Your task to perform on an android device: check google app version Image 0: 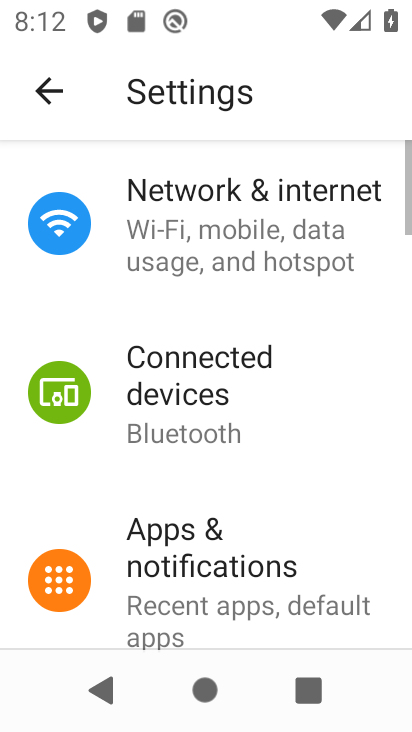
Step 0: press home button
Your task to perform on an android device: check google app version Image 1: 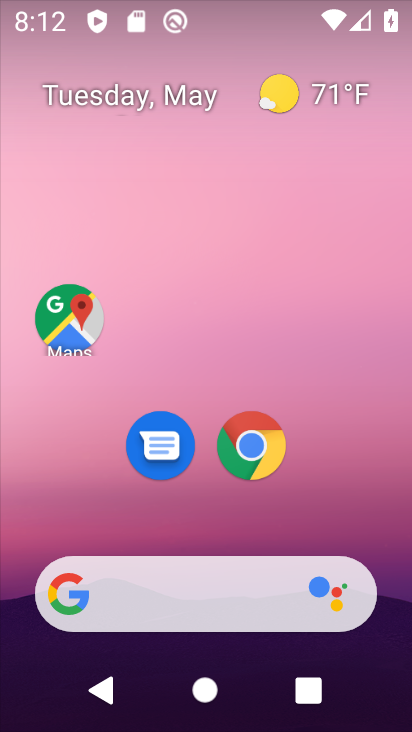
Step 1: drag from (207, 554) to (285, 72)
Your task to perform on an android device: check google app version Image 2: 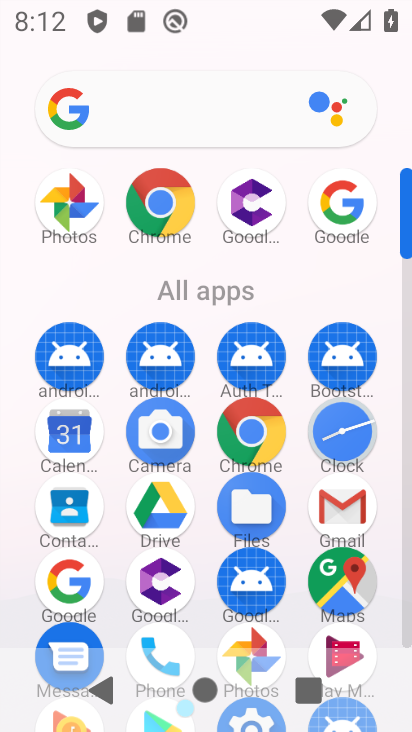
Step 2: click (77, 579)
Your task to perform on an android device: check google app version Image 3: 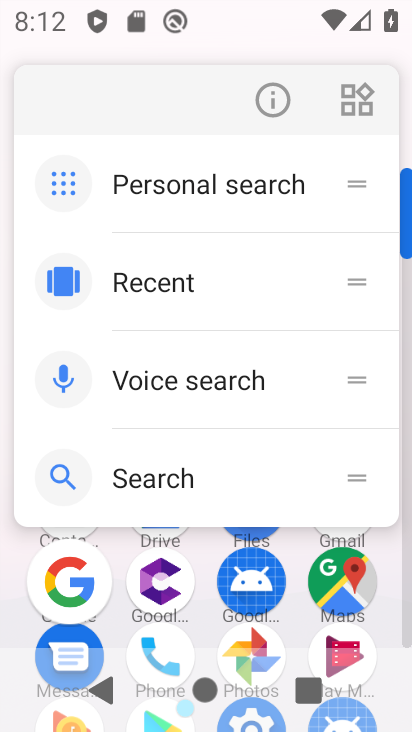
Step 3: click (274, 101)
Your task to perform on an android device: check google app version Image 4: 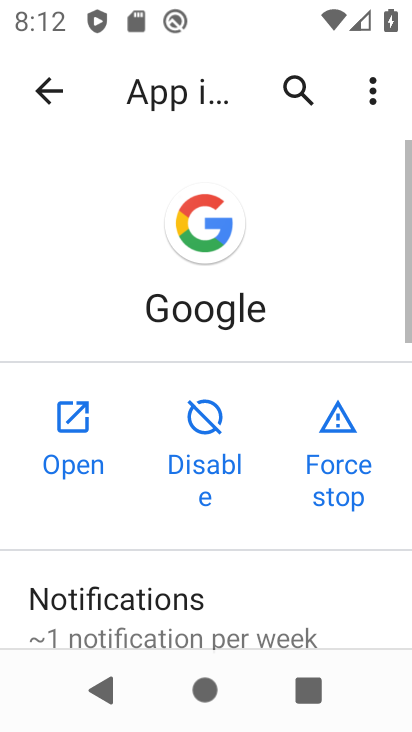
Step 4: drag from (161, 611) to (241, 134)
Your task to perform on an android device: check google app version Image 5: 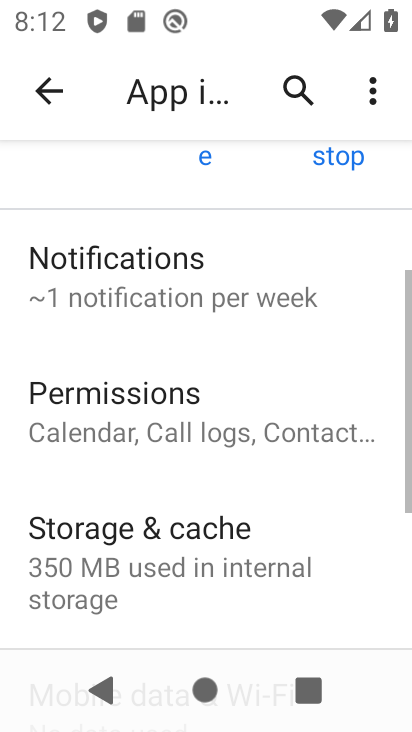
Step 5: drag from (248, 561) to (352, 70)
Your task to perform on an android device: check google app version Image 6: 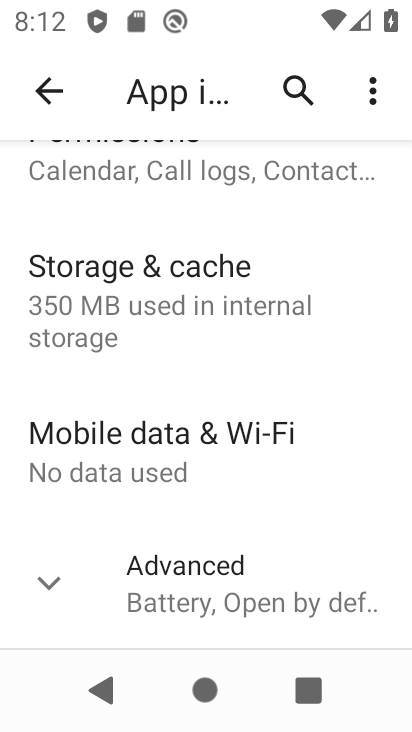
Step 6: click (173, 593)
Your task to perform on an android device: check google app version Image 7: 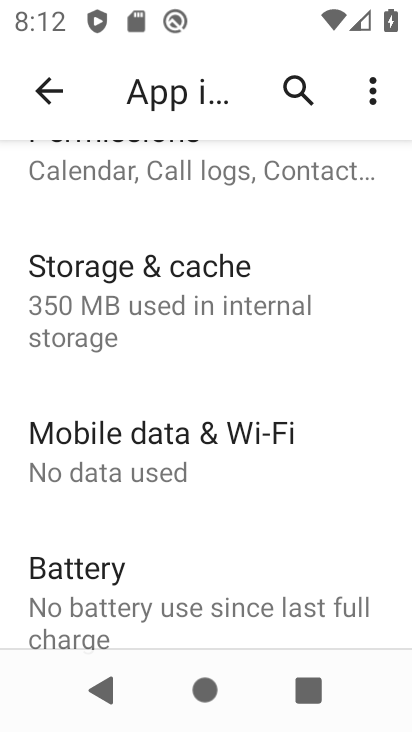
Step 7: task complete